Your task to perform on an android device: Search for flights from NYC to Mexico city Image 0: 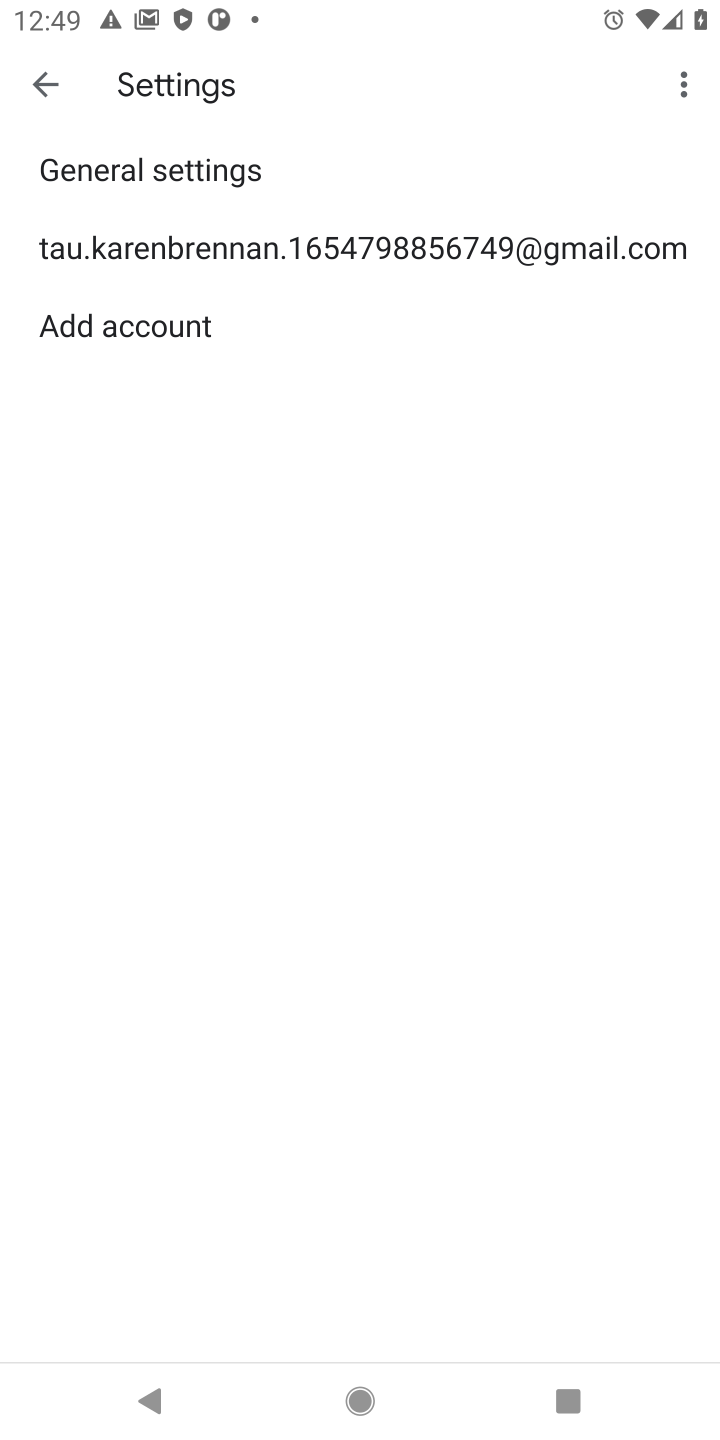
Step 0: press home button
Your task to perform on an android device: Search for flights from NYC to Mexico city Image 1: 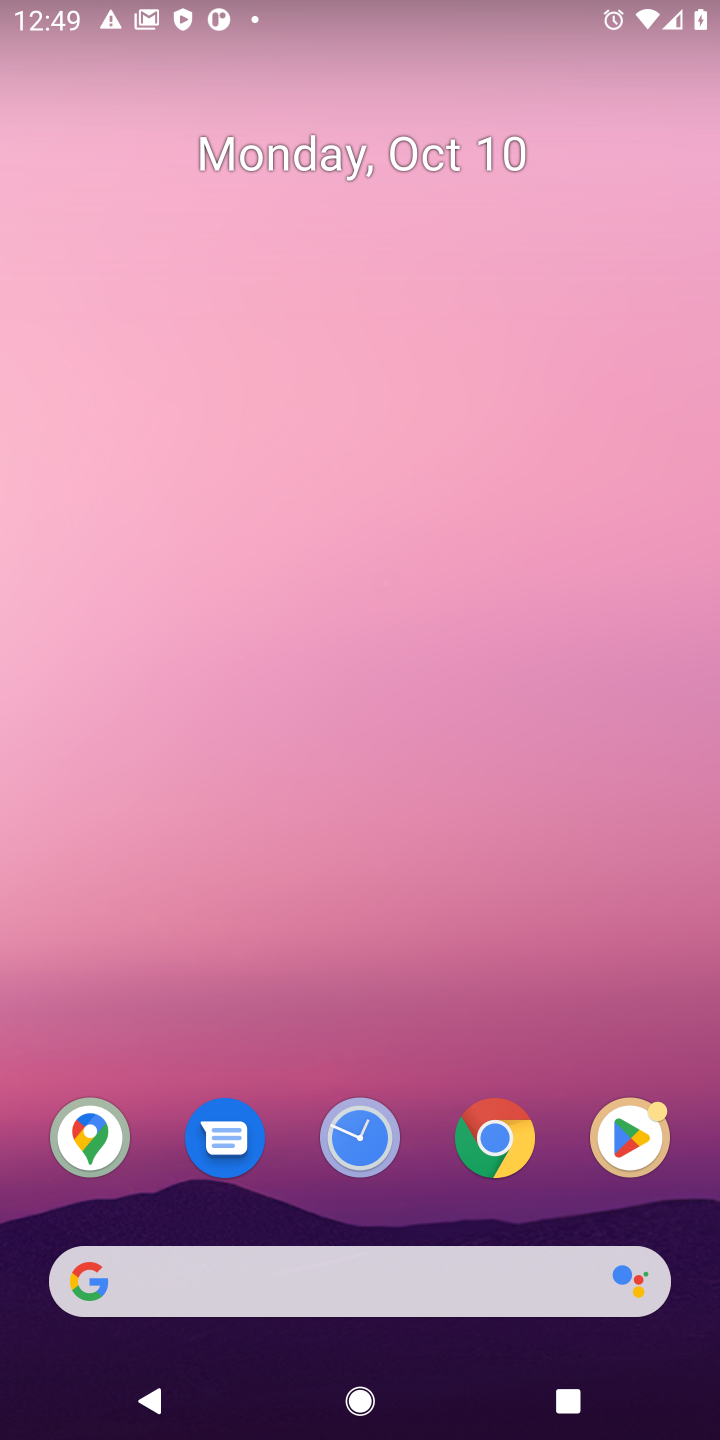
Step 1: click (508, 1112)
Your task to perform on an android device: Search for flights from NYC to Mexico city Image 2: 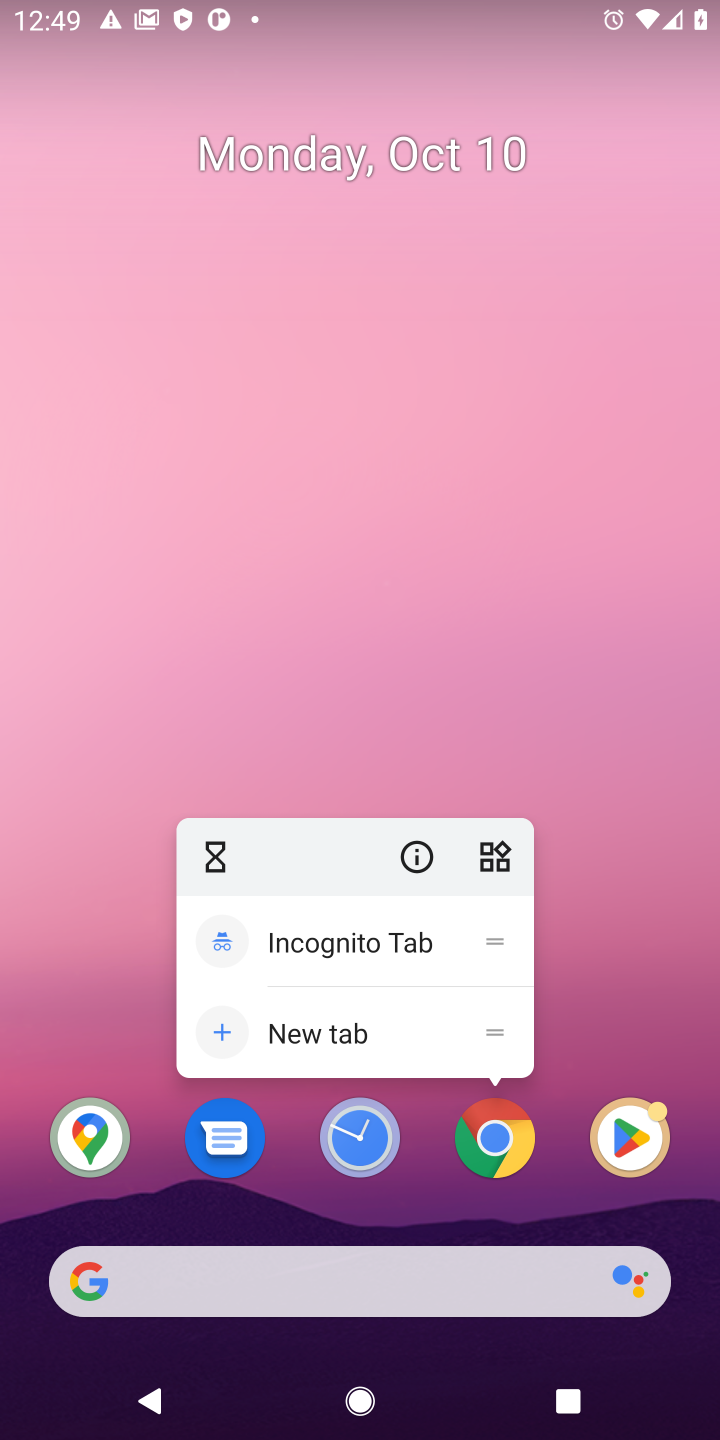
Step 2: click (489, 1160)
Your task to perform on an android device: Search for flights from NYC to Mexico city Image 3: 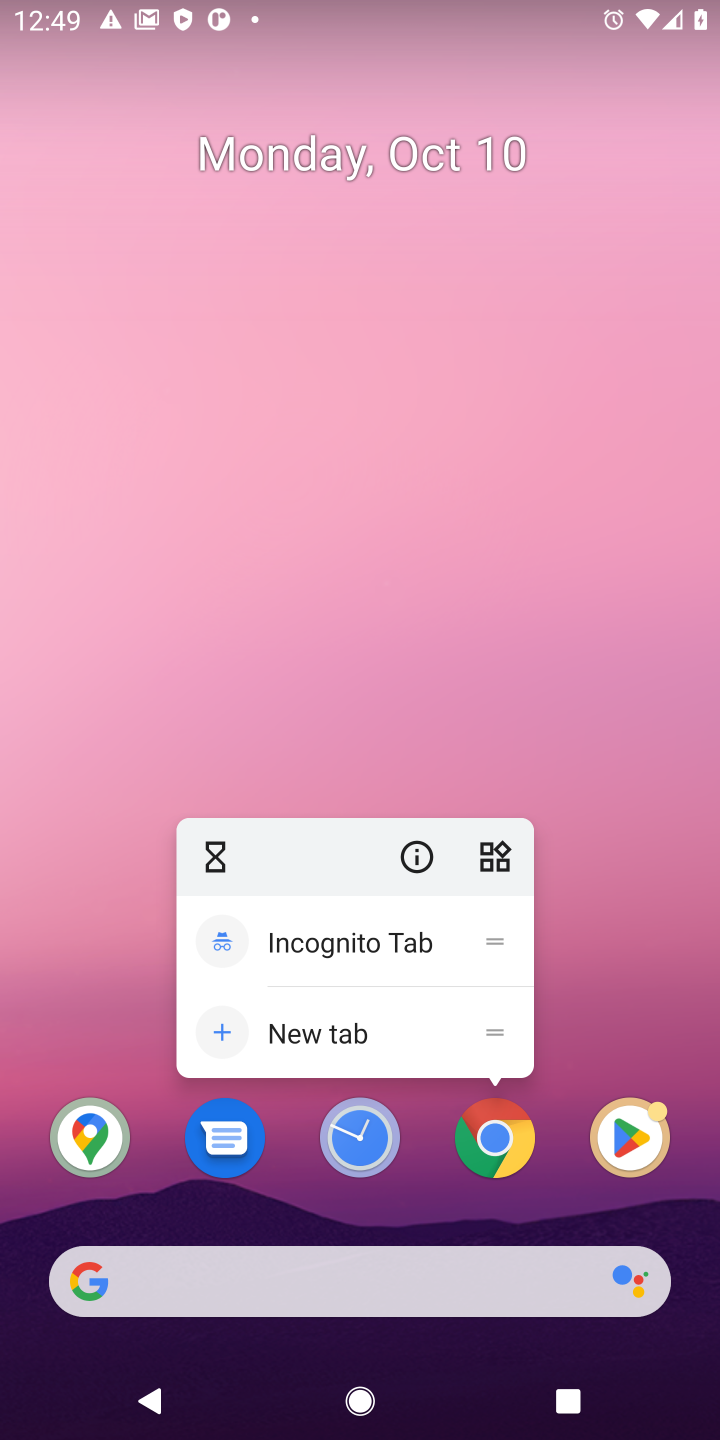
Step 3: click (502, 1156)
Your task to perform on an android device: Search for flights from NYC to Mexico city Image 4: 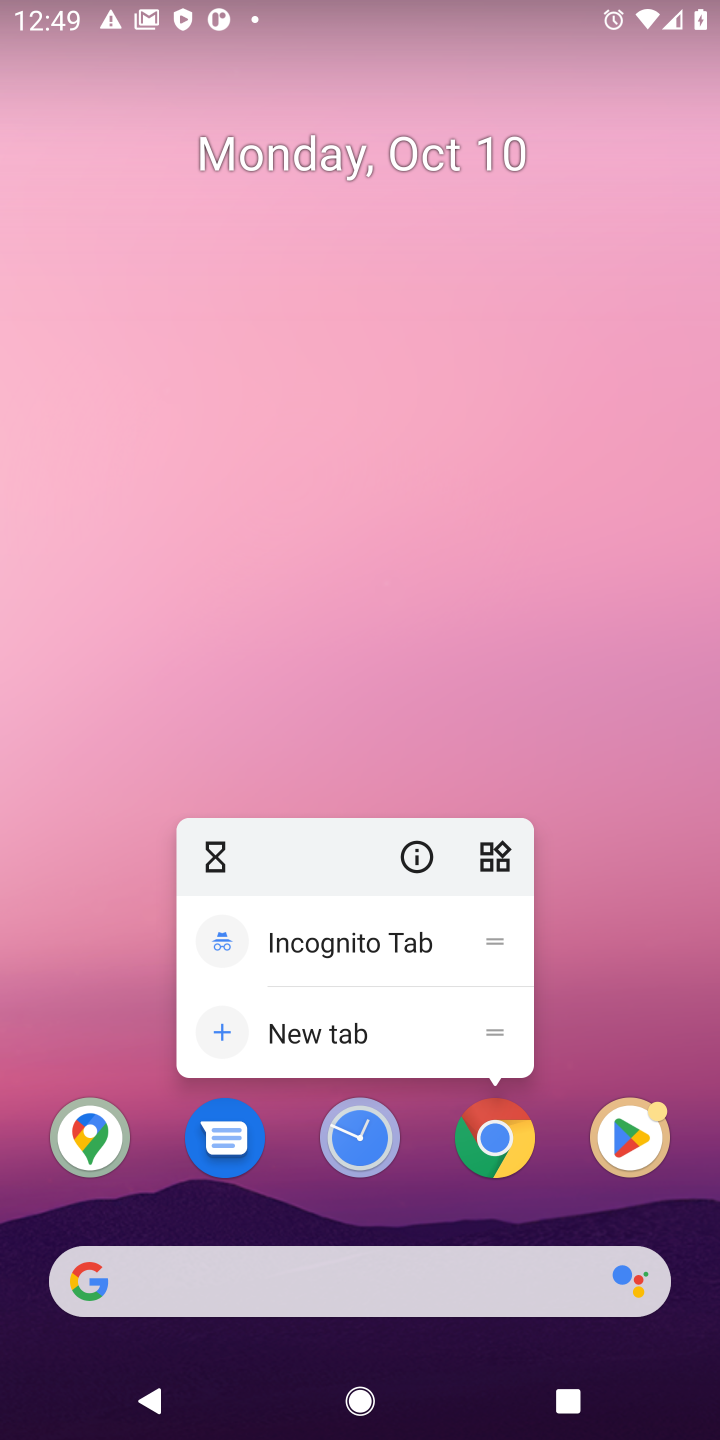
Step 4: click (502, 1156)
Your task to perform on an android device: Search for flights from NYC to Mexico city Image 5: 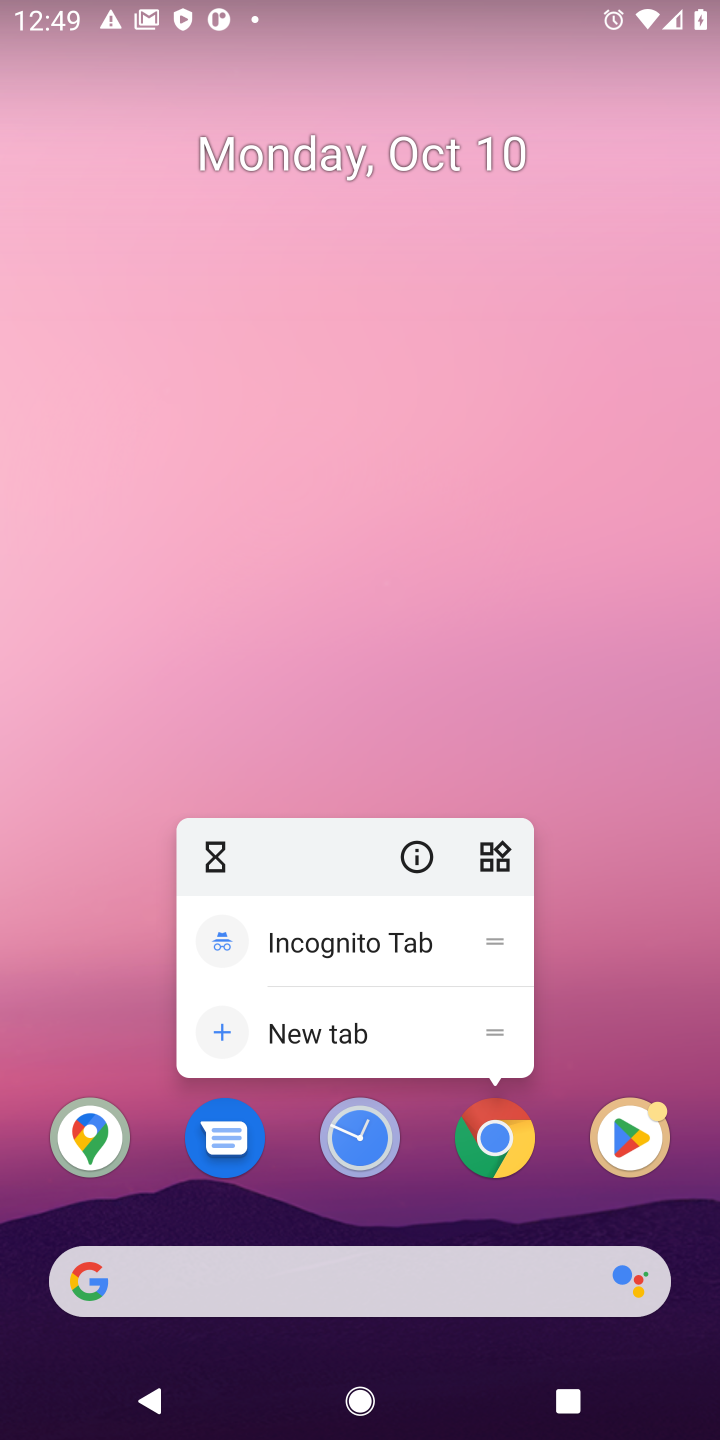
Step 5: click (486, 1149)
Your task to perform on an android device: Search for flights from NYC to Mexico city Image 6: 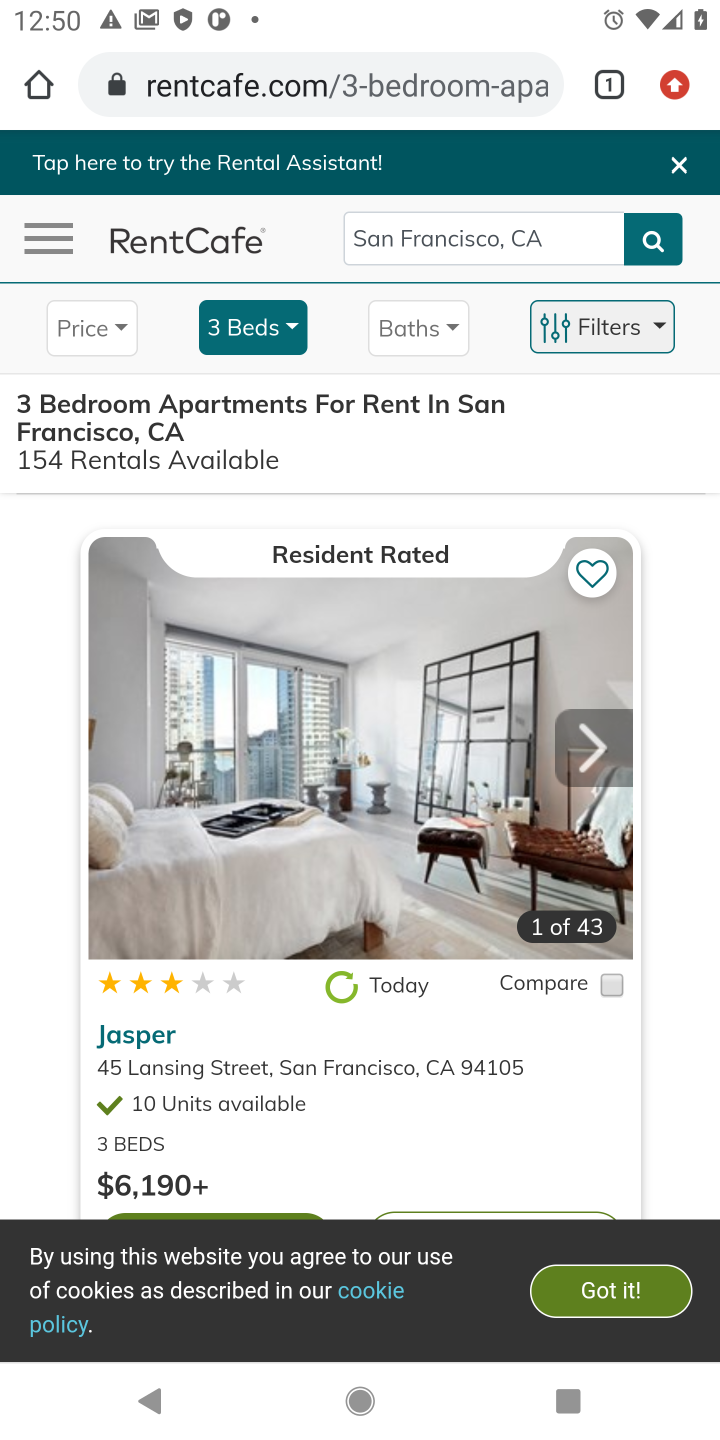
Step 6: click (448, 102)
Your task to perform on an android device: Search for flights from NYC to Mexico city Image 7: 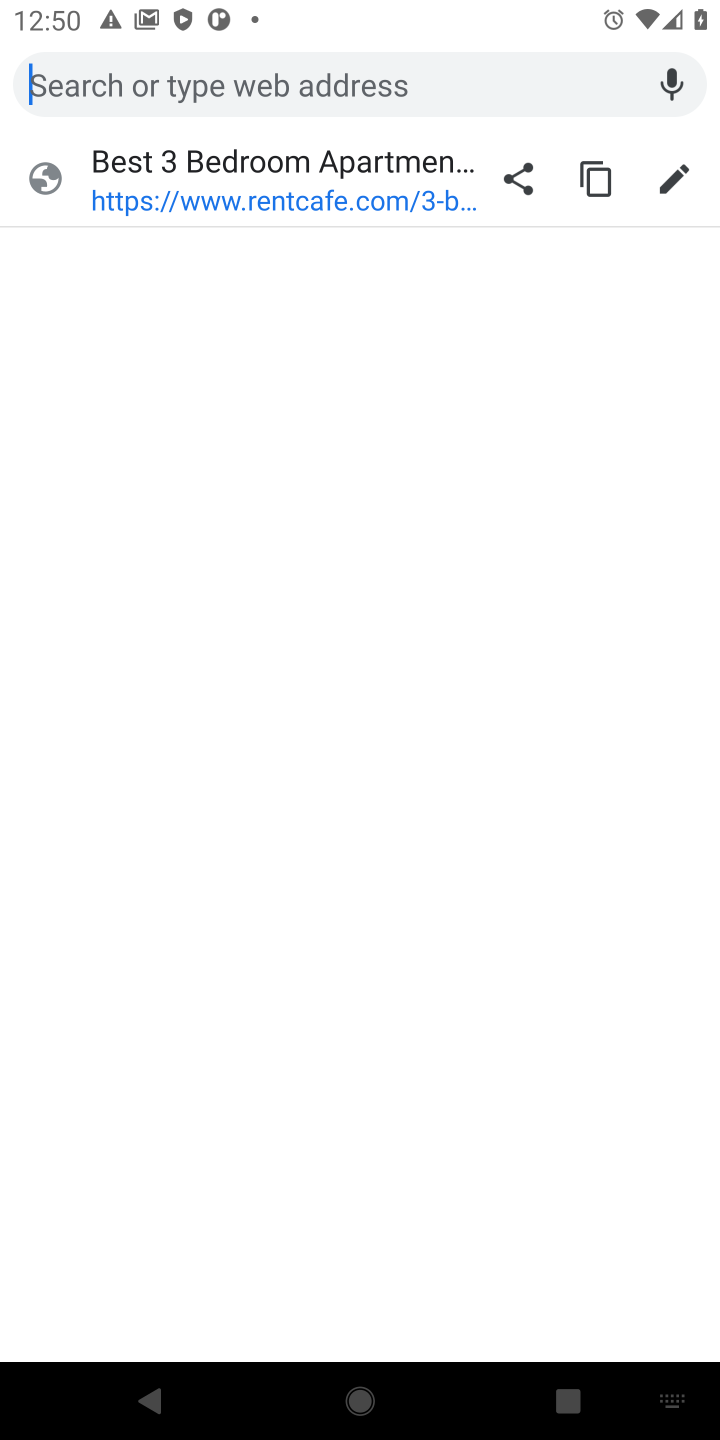
Step 7: type "flights from NYC to Mexico city"
Your task to perform on an android device: Search for flights from NYC to Mexico city Image 8: 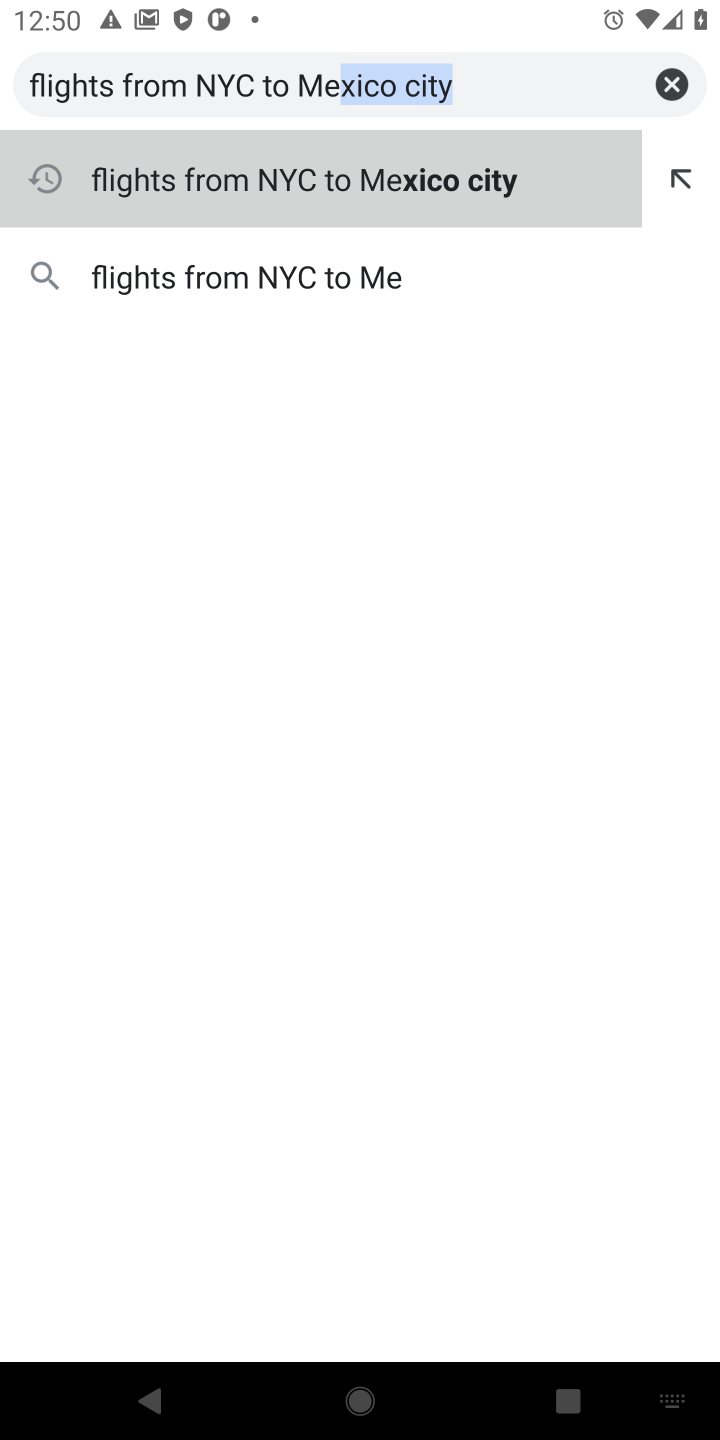
Step 8: press enter
Your task to perform on an android device: Search for flights from NYC to Mexico city Image 9: 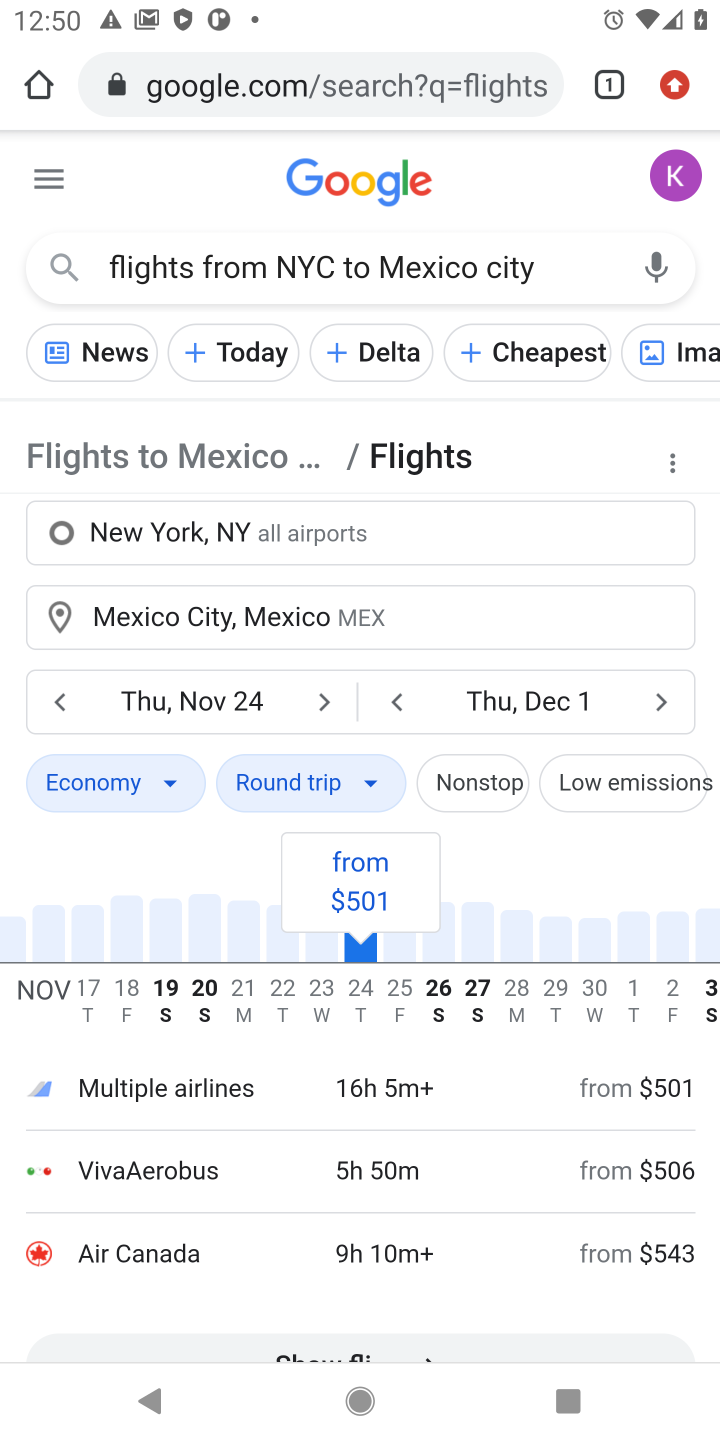
Step 9: task complete